Your task to perform on an android device: change the upload size in google photos Image 0: 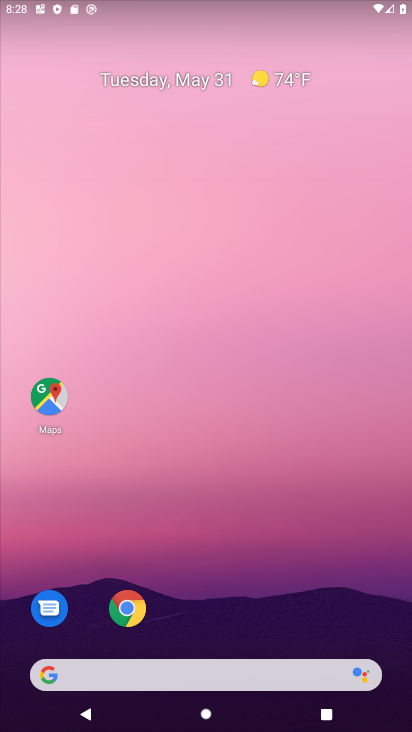
Step 0: drag from (220, 638) to (173, 180)
Your task to perform on an android device: change the upload size in google photos Image 1: 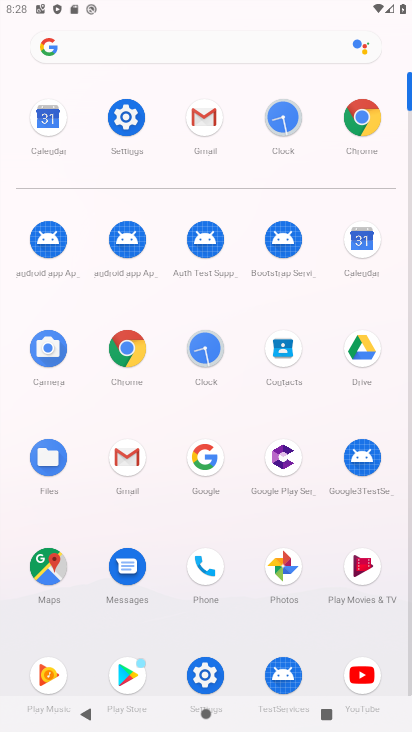
Step 1: click (280, 554)
Your task to perform on an android device: change the upload size in google photos Image 2: 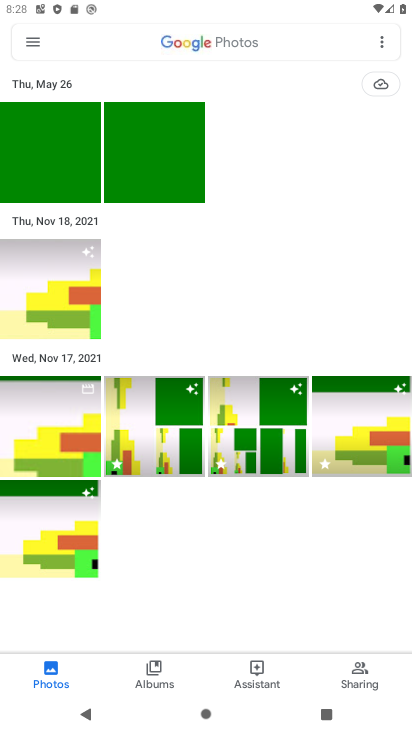
Step 2: click (34, 45)
Your task to perform on an android device: change the upload size in google photos Image 3: 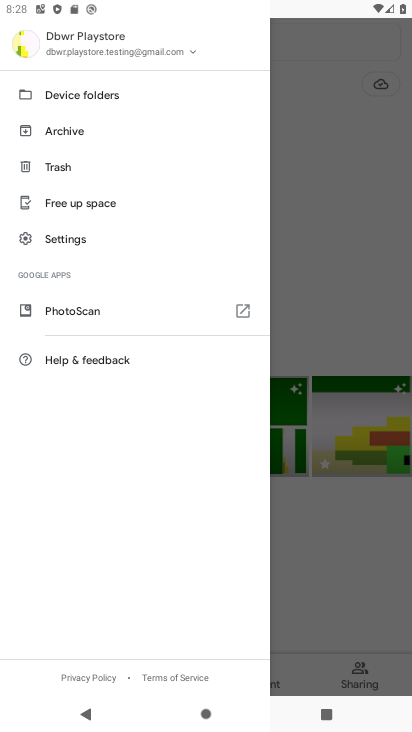
Step 3: click (46, 237)
Your task to perform on an android device: change the upload size in google photos Image 4: 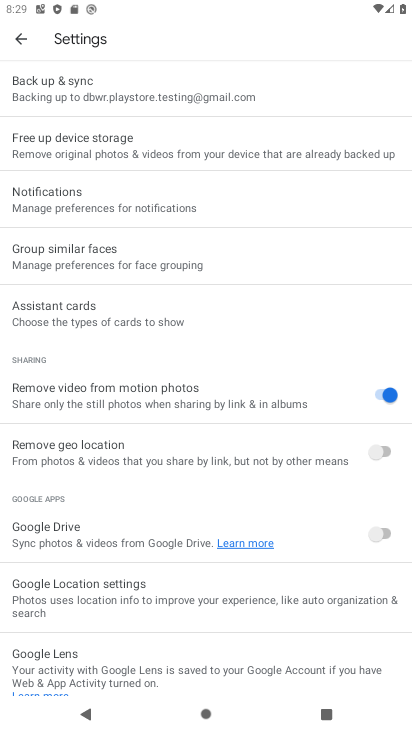
Step 4: click (60, 99)
Your task to perform on an android device: change the upload size in google photos Image 5: 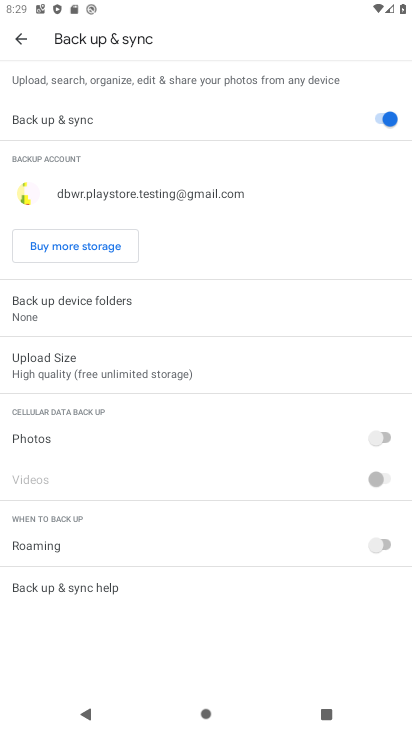
Step 5: click (91, 361)
Your task to perform on an android device: change the upload size in google photos Image 6: 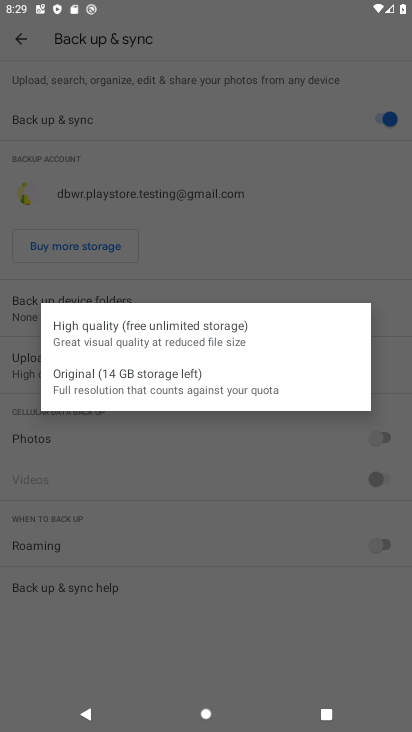
Step 6: click (149, 391)
Your task to perform on an android device: change the upload size in google photos Image 7: 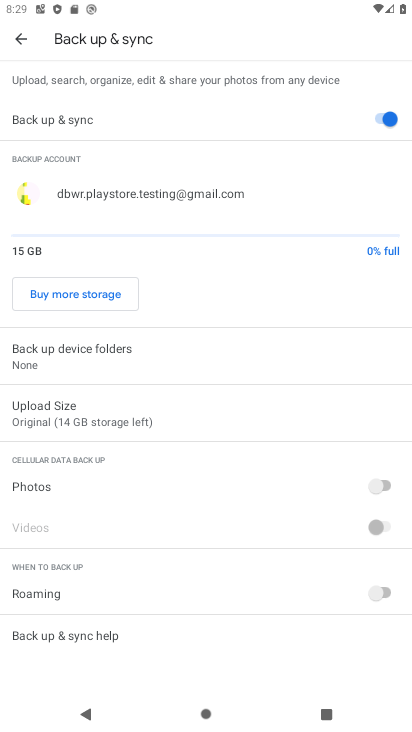
Step 7: task complete